Your task to perform on an android device: turn off wifi Image 0: 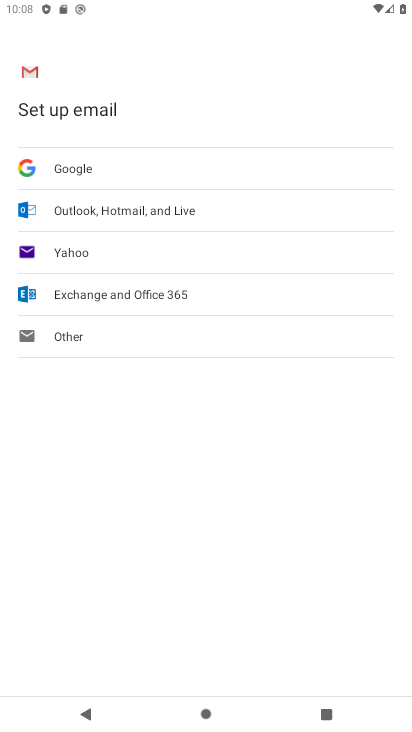
Step 0: press home button
Your task to perform on an android device: turn off wifi Image 1: 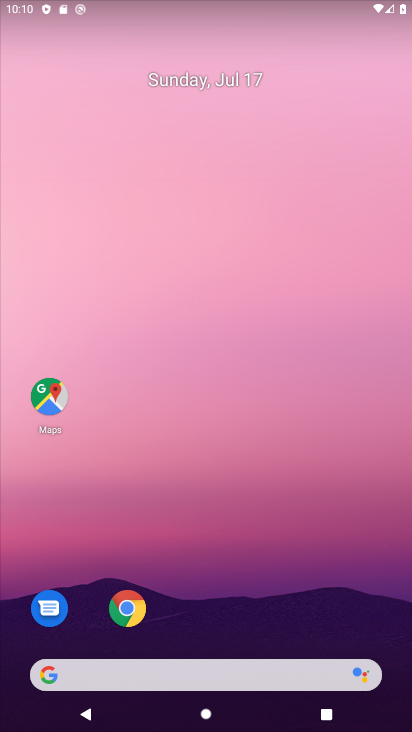
Step 1: drag from (160, 10) to (182, 479)
Your task to perform on an android device: turn off wifi Image 2: 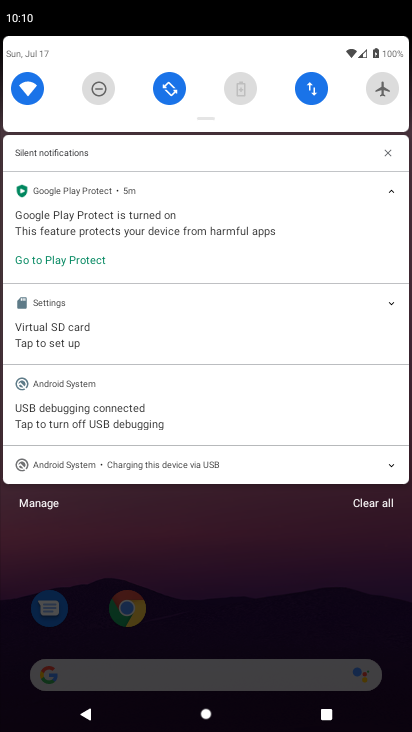
Step 2: click (27, 91)
Your task to perform on an android device: turn off wifi Image 3: 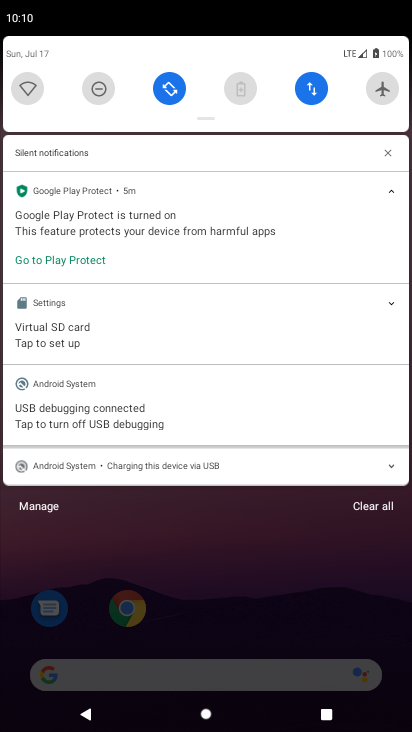
Step 3: task complete